Your task to perform on an android device: Go to battery settings Image 0: 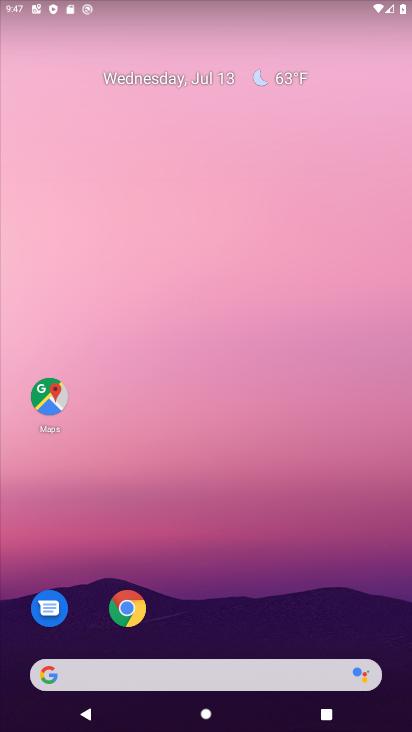
Step 0: drag from (251, 649) to (310, 23)
Your task to perform on an android device: Go to battery settings Image 1: 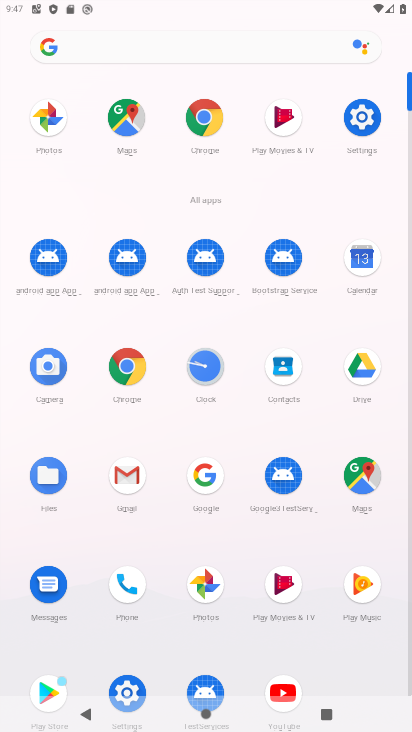
Step 1: click (125, 683)
Your task to perform on an android device: Go to battery settings Image 2: 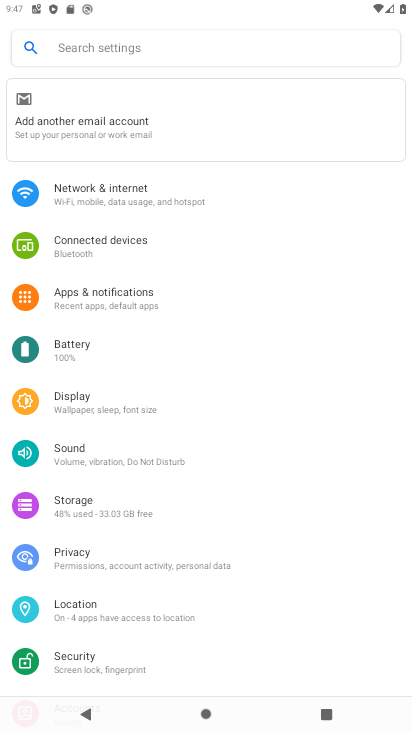
Step 2: click (75, 351)
Your task to perform on an android device: Go to battery settings Image 3: 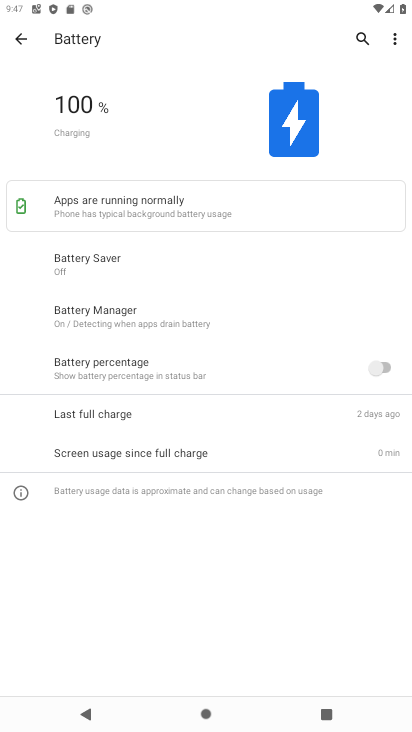
Step 3: task complete